Your task to perform on an android device: See recent photos Image 0: 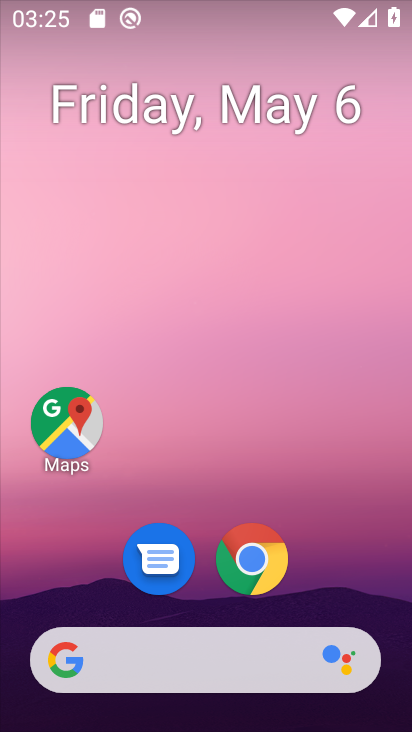
Step 0: drag from (327, 608) to (309, 3)
Your task to perform on an android device: See recent photos Image 1: 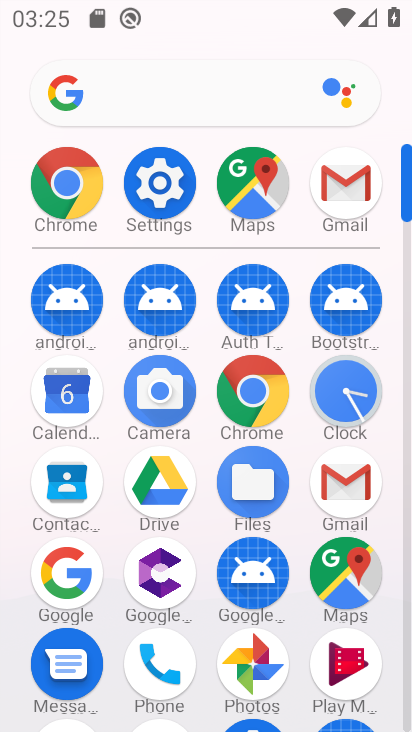
Step 1: click (234, 665)
Your task to perform on an android device: See recent photos Image 2: 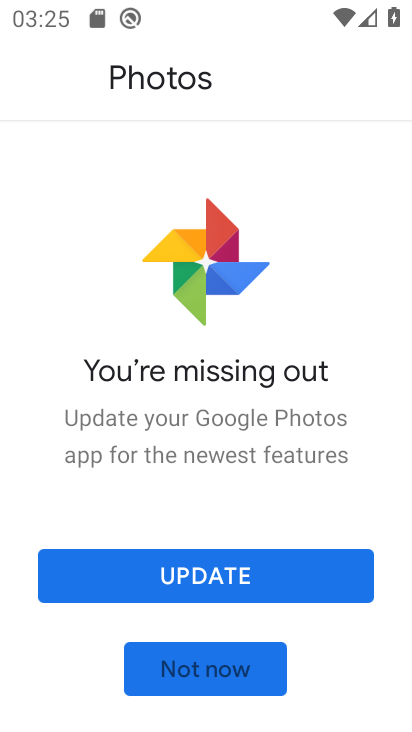
Step 2: click (238, 580)
Your task to perform on an android device: See recent photos Image 3: 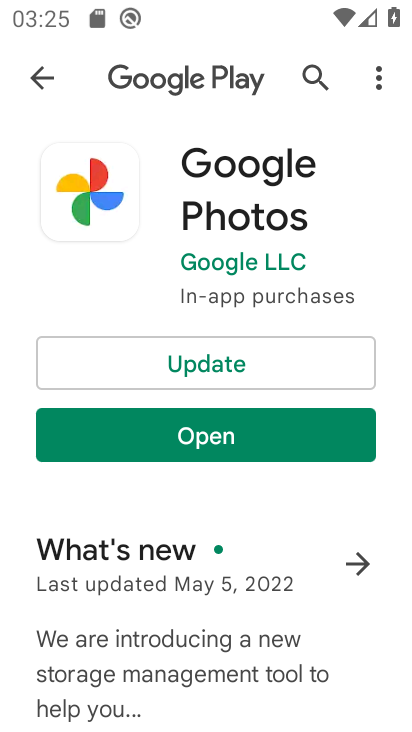
Step 3: click (238, 375)
Your task to perform on an android device: See recent photos Image 4: 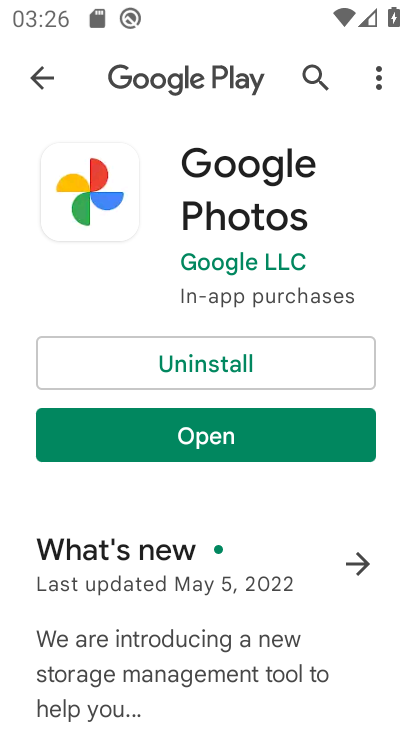
Step 4: click (243, 447)
Your task to perform on an android device: See recent photos Image 5: 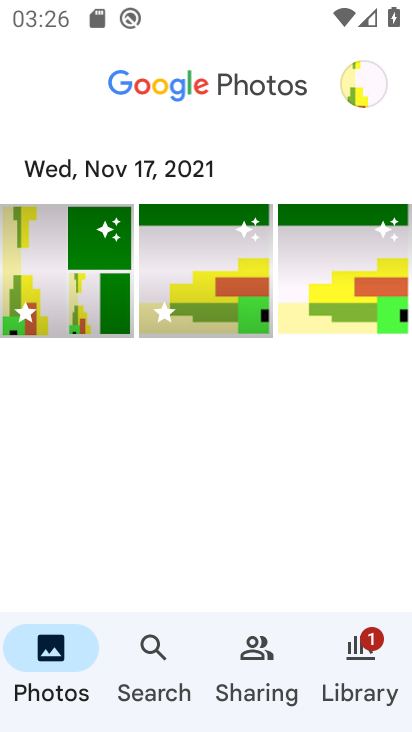
Step 5: task complete